Your task to perform on an android device: toggle data saver in the chrome app Image 0: 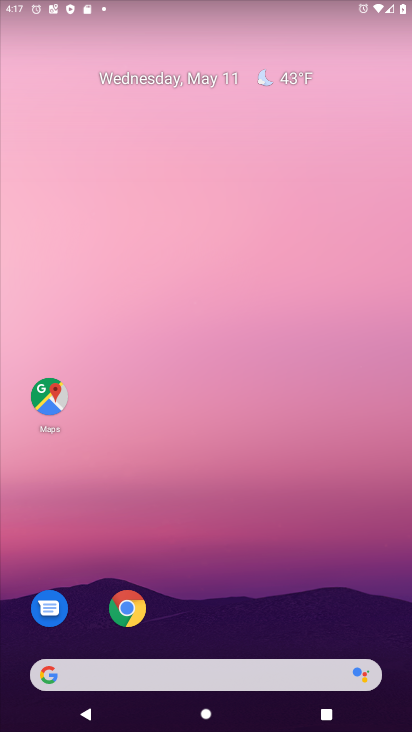
Step 0: click (121, 607)
Your task to perform on an android device: toggle data saver in the chrome app Image 1: 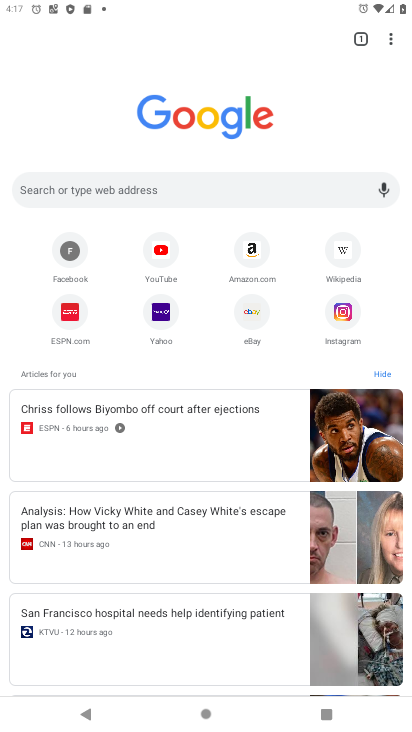
Step 1: click (391, 42)
Your task to perform on an android device: toggle data saver in the chrome app Image 2: 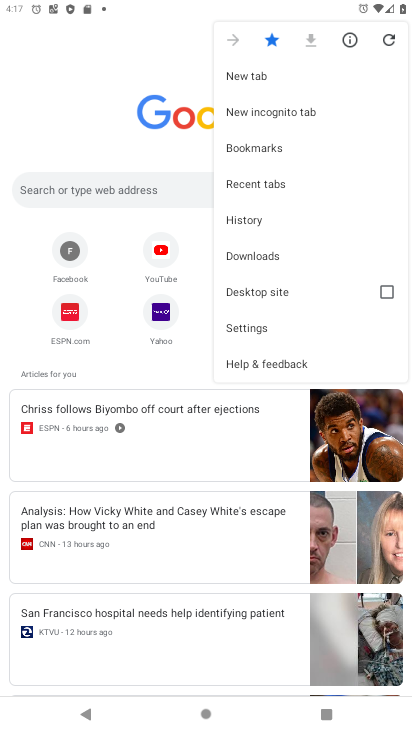
Step 2: click (254, 328)
Your task to perform on an android device: toggle data saver in the chrome app Image 3: 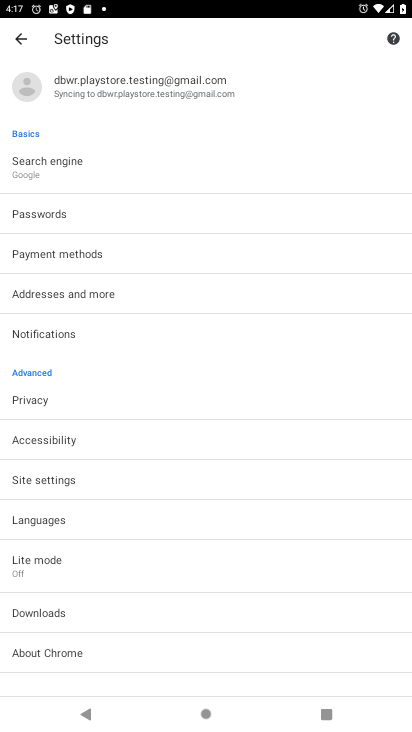
Step 3: click (53, 558)
Your task to perform on an android device: toggle data saver in the chrome app Image 4: 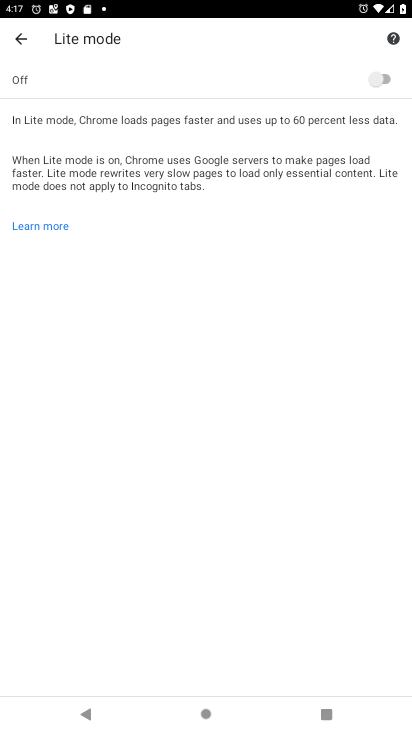
Step 4: click (390, 76)
Your task to perform on an android device: toggle data saver in the chrome app Image 5: 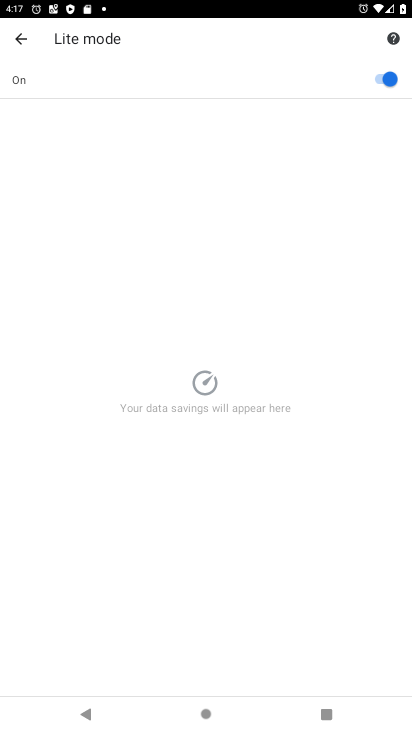
Step 5: task complete